Your task to perform on an android device: set the stopwatch Image 0: 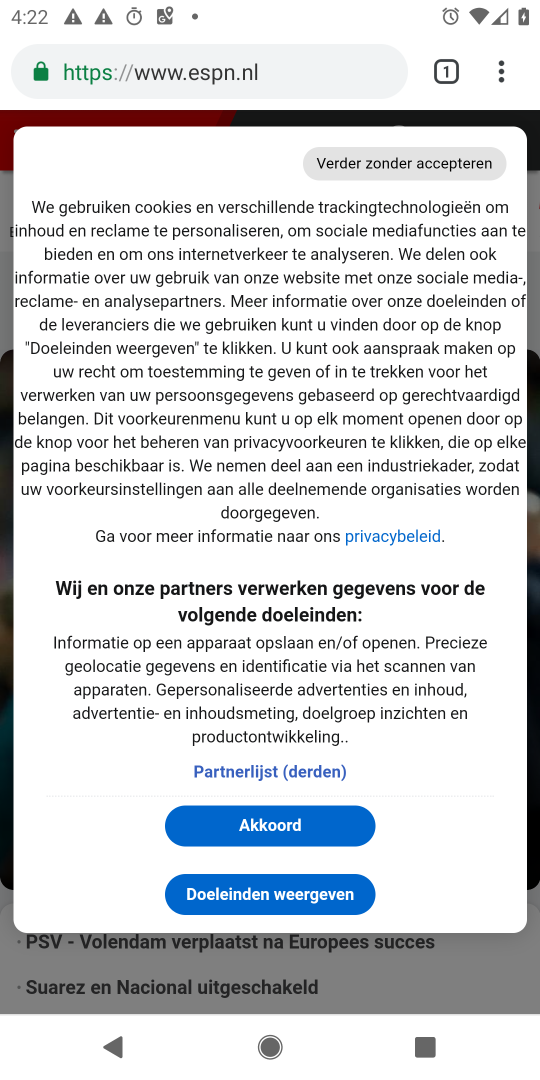
Step 0: press home button
Your task to perform on an android device: set the stopwatch Image 1: 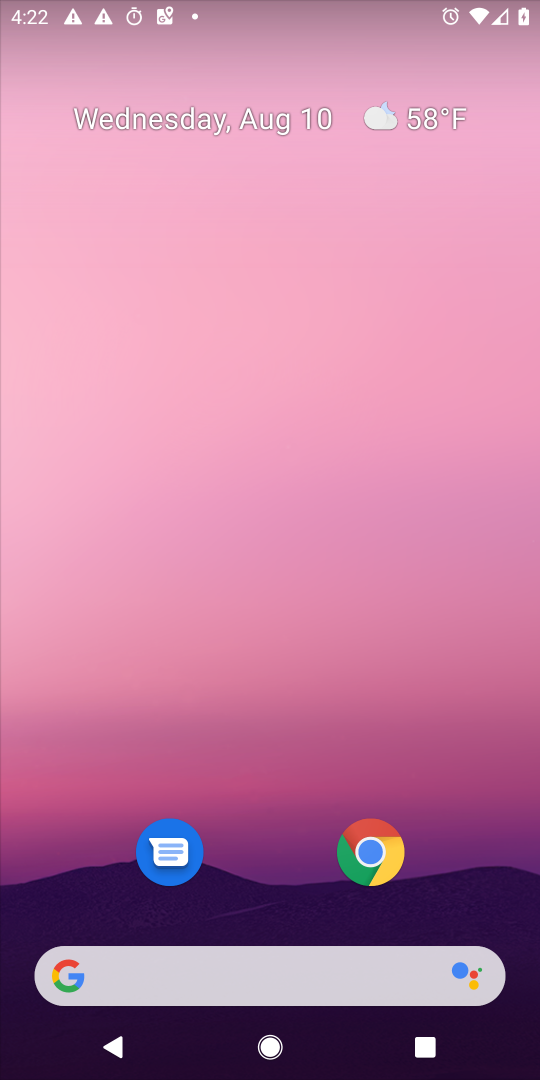
Step 1: drag from (246, 854) to (211, 2)
Your task to perform on an android device: set the stopwatch Image 2: 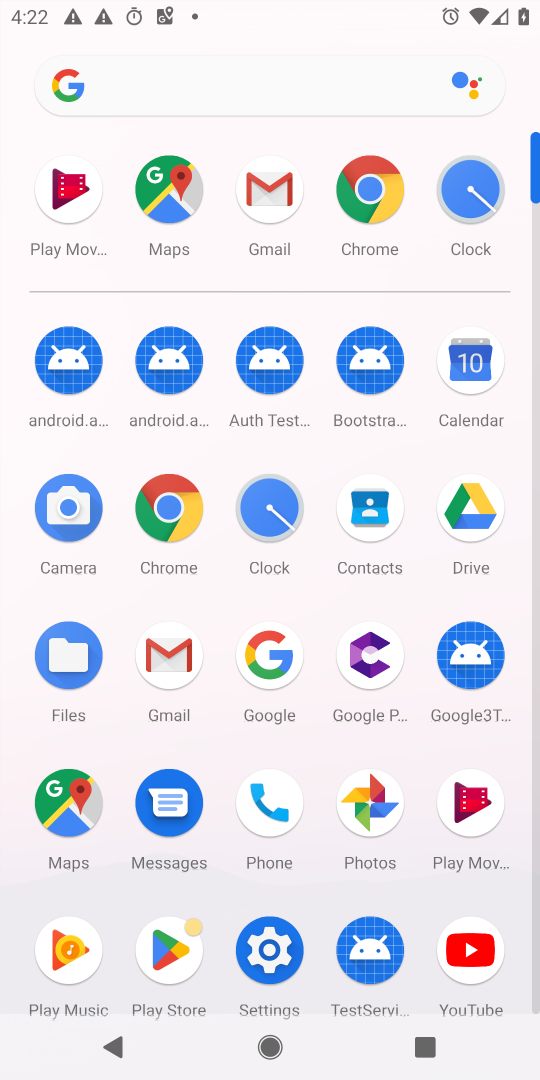
Step 2: click (261, 515)
Your task to perform on an android device: set the stopwatch Image 3: 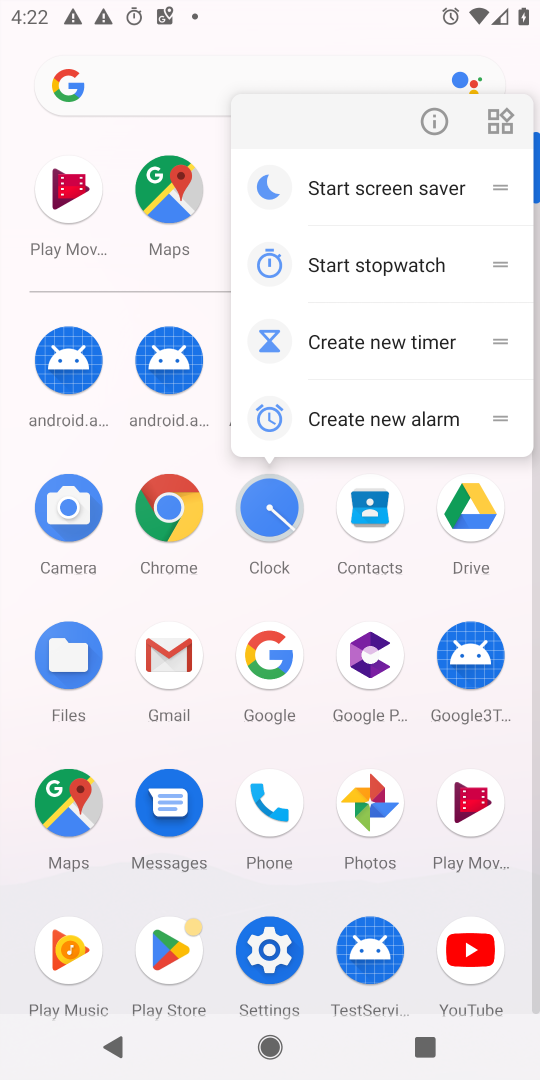
Step 3: click (261, 512)
Your task to perform on an android device: set the stopwatch Image 4: 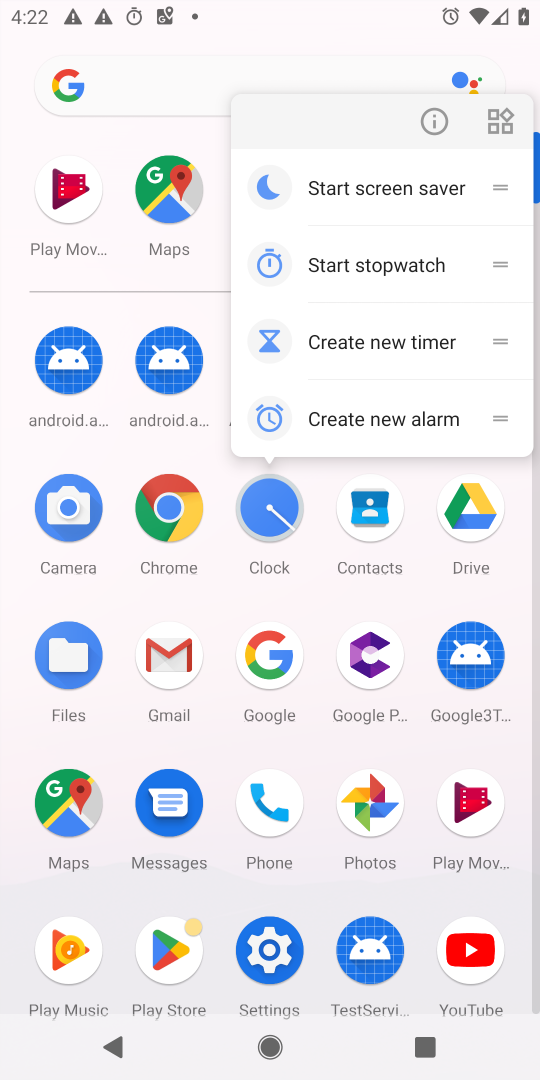
Step 4: click (261, 512)
Your task to perform on an android device: set the stopwatch Image 5: 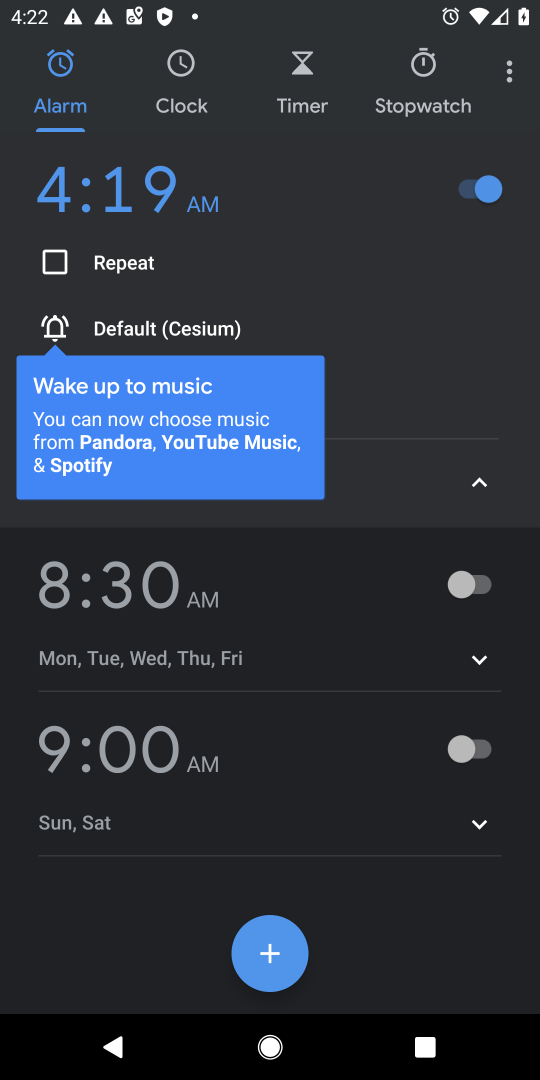
Step 5: click (418, 65)
Your task to perform on an android device: set the stopwatch Image 6: 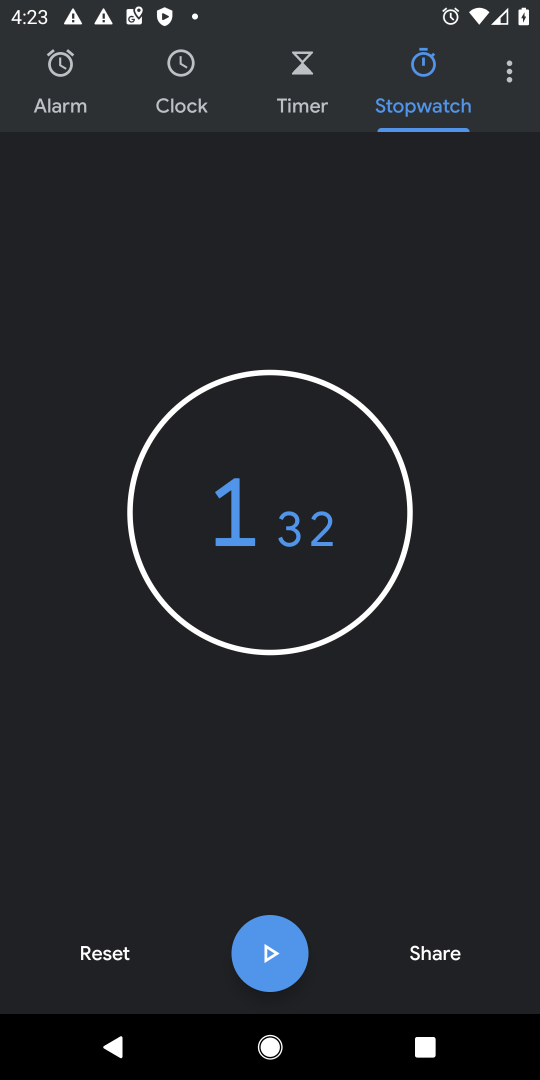
Step 6: task complete